Your task to perform on an android device: Show me popular games on the Play Store Image 0: 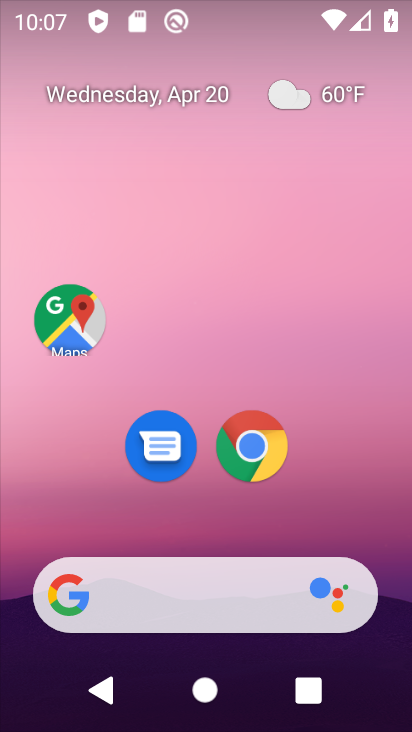
Step 0: drag from (347, 504) to (206, 7)
Your task to perform on an android device: Show me popular games on the Play Store Image 1: 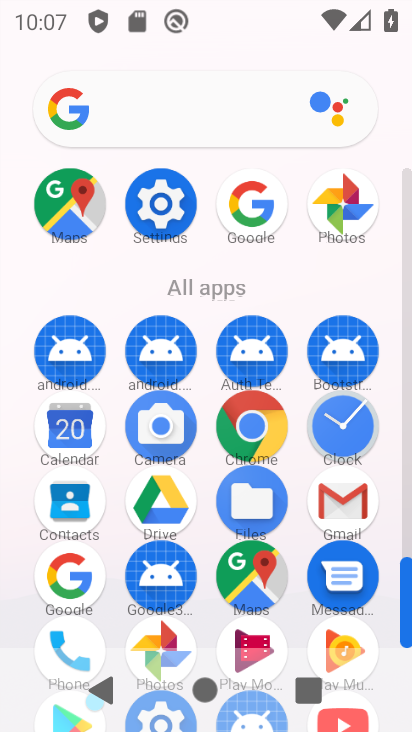
Step 1: drag from (10, 556) to (16, 209)
Your task to perform on an android device: Show me popular games on the Play Store Image 2: 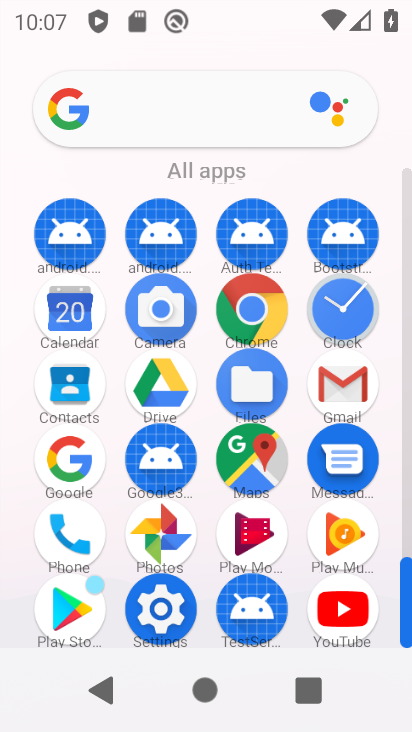
Step 2: click (71, 604)
Your task to perform on an android device: Show me popular games on the Play Store Image 3: 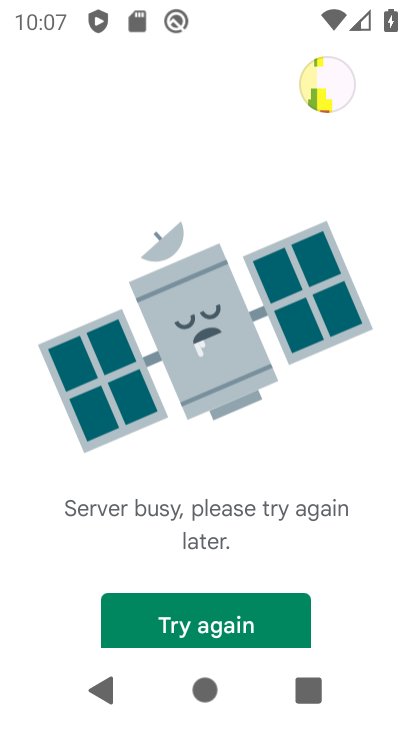
Step 3: click (153, 613)
Your task to perform on an android device: Show me popular games on the Play Store Image 4: 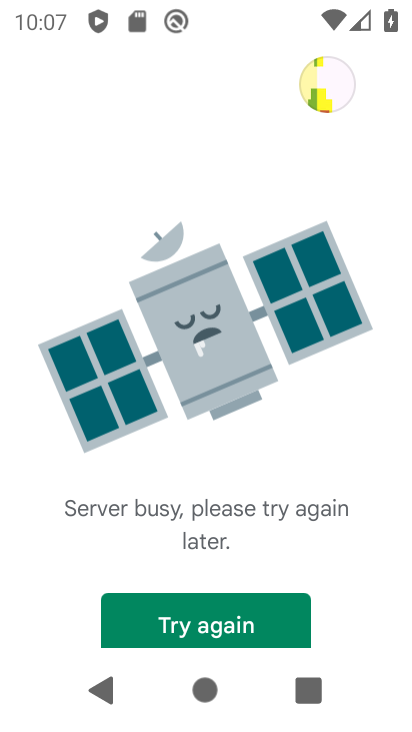
Step 4: click (153, 613)
Your task to perform on an android device: Show me popular games on the Play Store Image 5: 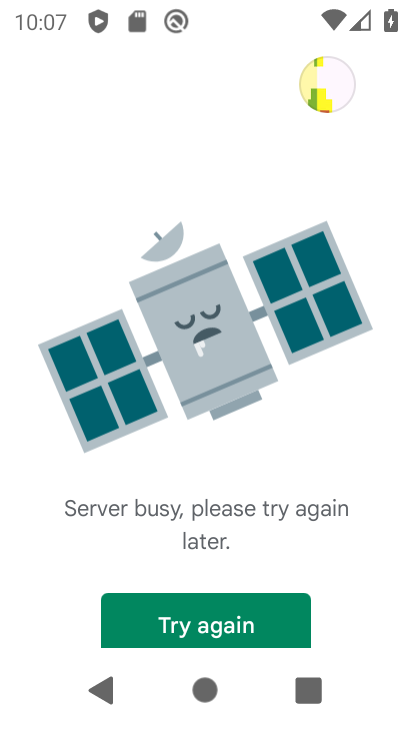
Step 5: task complete